Your task to perform on an android device: open a bookmark in the chrome app Image 0: 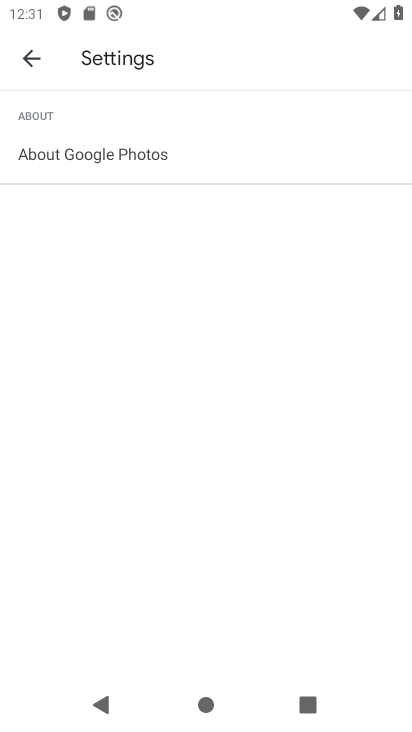
Step 0: press home button
Your task to perform on an android device: open a bookmark in the chrome app Image 1: 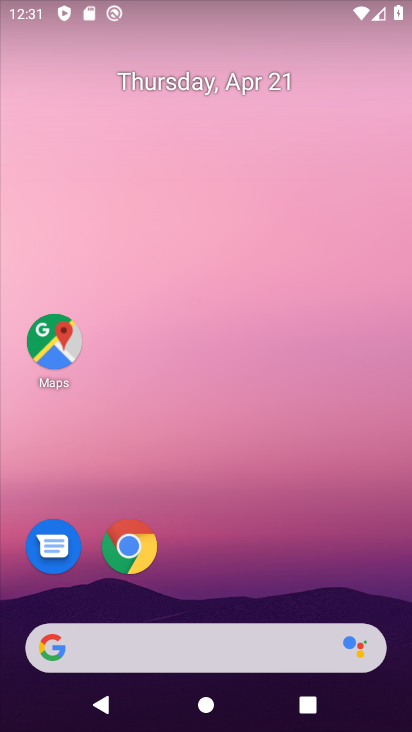
Step 1: click (140, 546)
Your task to perform on an android device: open a bookmark in the chrome app Image 2: 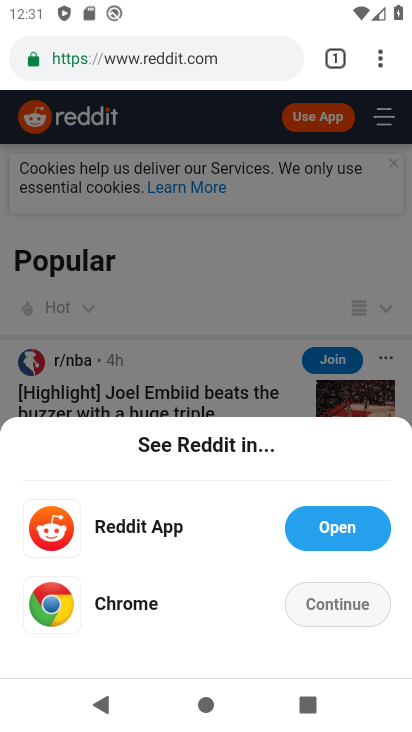
Step 2: task complete